Your task to perform on an android device: Open Amazon Image 0: 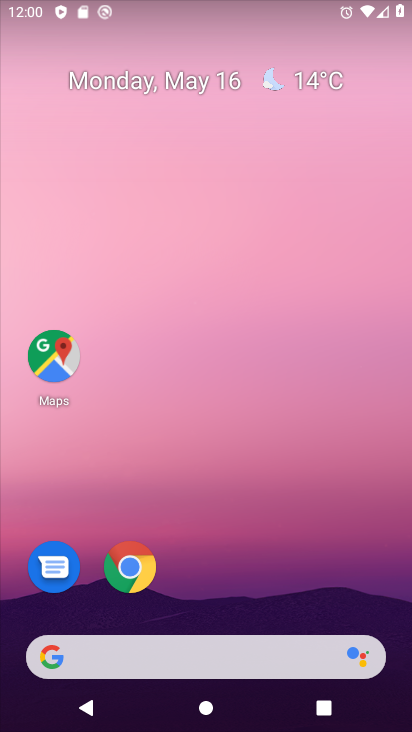
Step 0: click (136, 568)
Your task to perform on an android device: Open Amazon Image 1: 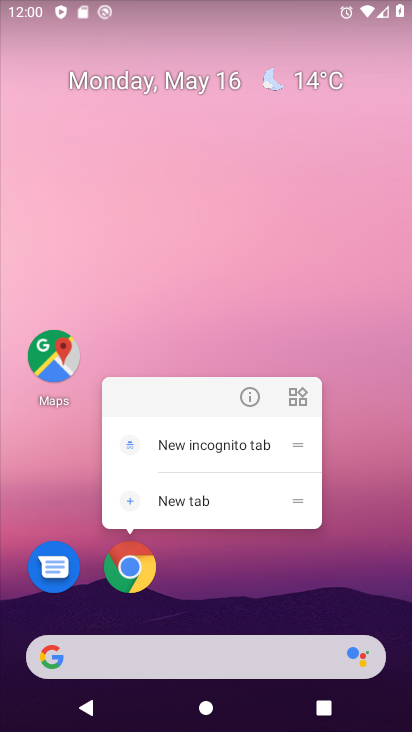
Step 1: click (136, 568)
Your task to perform on an android device: Open Amazon Image 2: 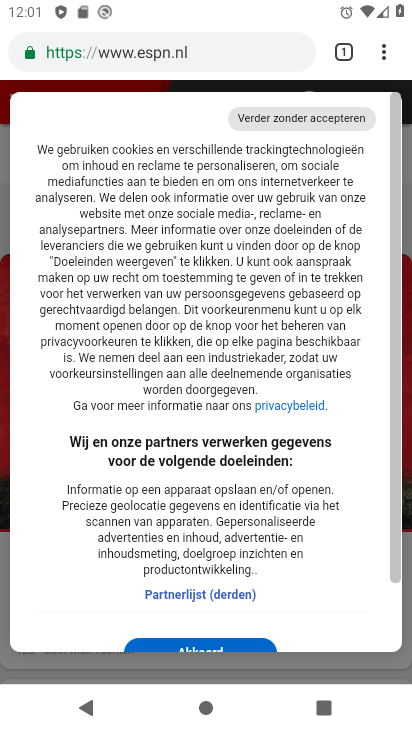
Step 2: click (114, 53)
Your task to perform on an android device: Open Amazon Image 3: 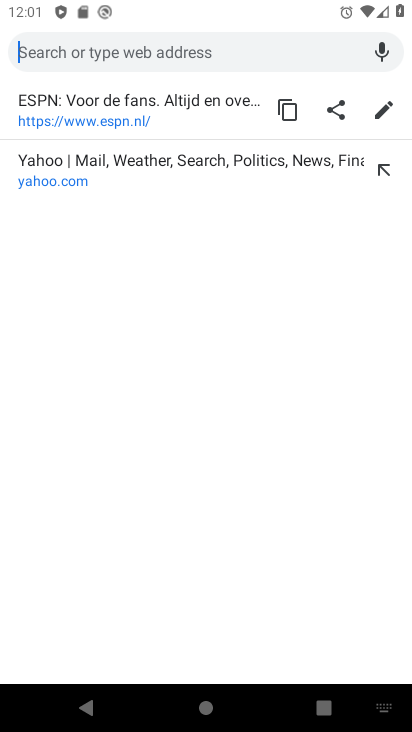
Step 3: type "amazon"
Your task to perform on an android device: Open Amazon Image 4: 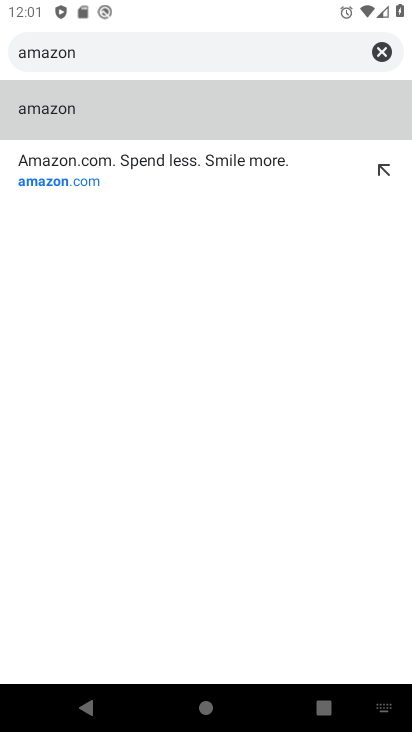
Step 4: click (269, 119)
Your task to perform on an android device: Open Amazon Image 5: 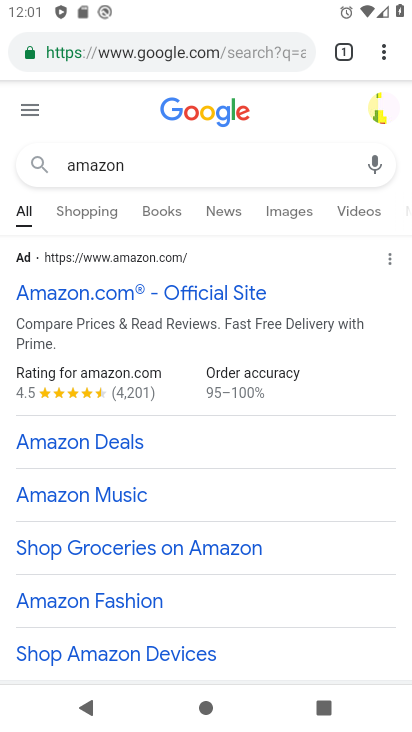
Step 5: click (41, 302)
Your task to perform on an android device: Open Amazon Image 6: 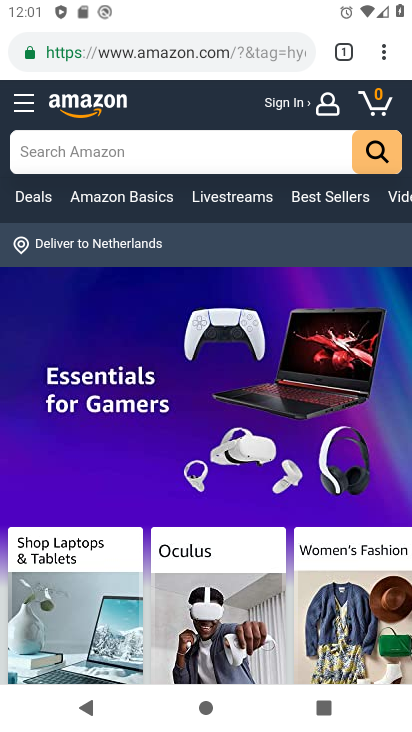
Step 6: task complete